Your task to perform on an android device: check android version Image 0: 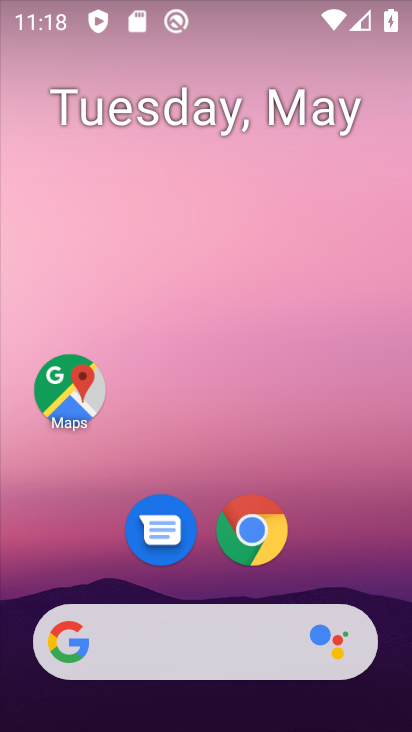
Step 0: drag from (199, 584) to (240, 154)
Your task to perform on an android device: check android version Image 1: 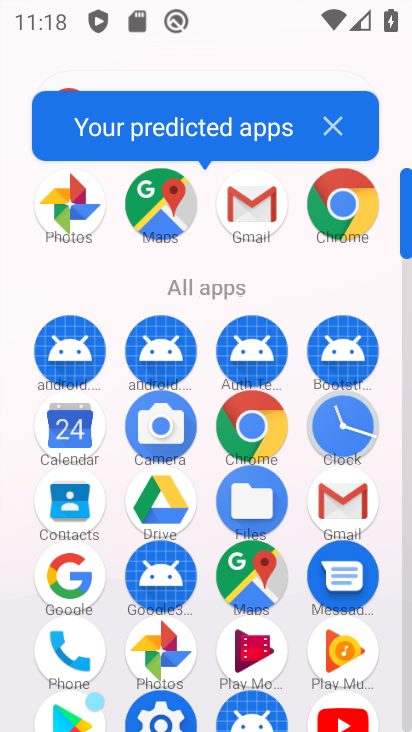
Step 1: drag from (208, 637) to (191, 348)
Your task to perform on an android device: check android version Image 2: 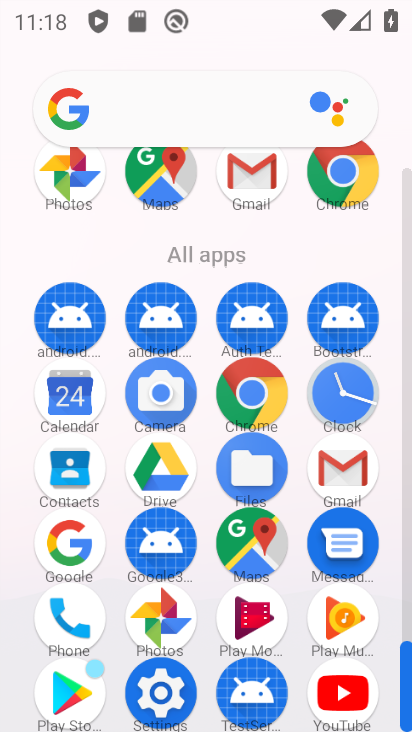
Step 2: click (160, 691)
Your task to perform on an android device: check android version Image 3: 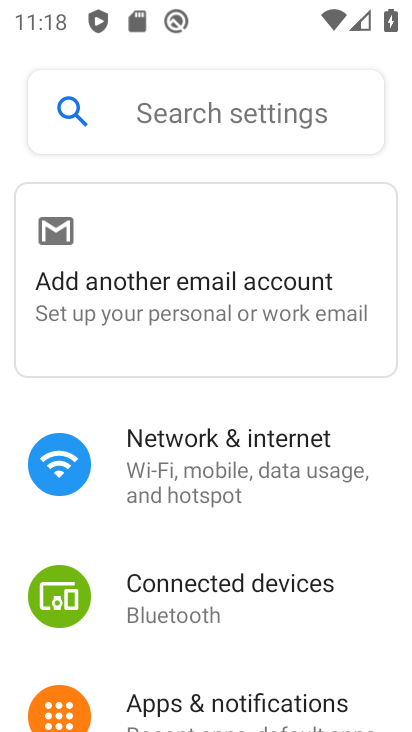
Step 3: drag from (228, 621) to (257, 311)
Your task to perform on an android device: check android version Image 4: 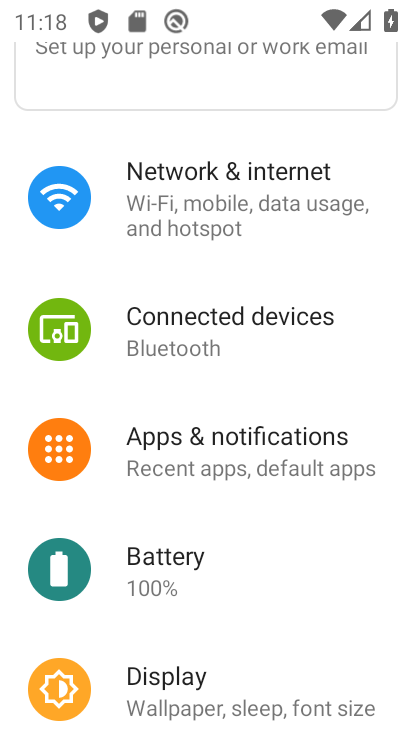
Step 4: drag from (248, 657) to (302, 233)
Your task to perform on an android device: check android version Image 5: 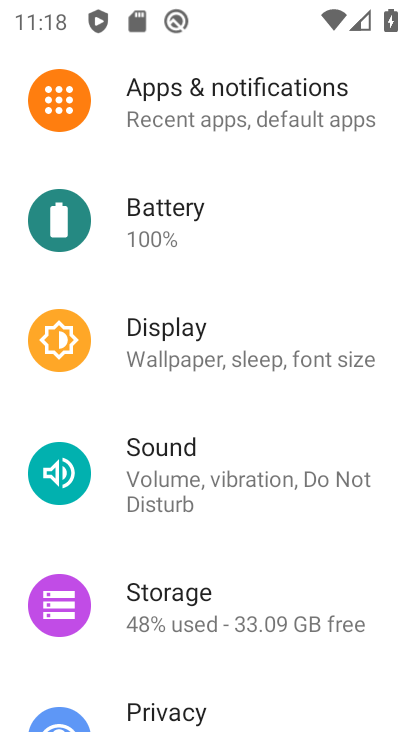
Step 5: drag from (214, 651) to (267, 9)
Your task to perform on an android device: check android version Image 6: 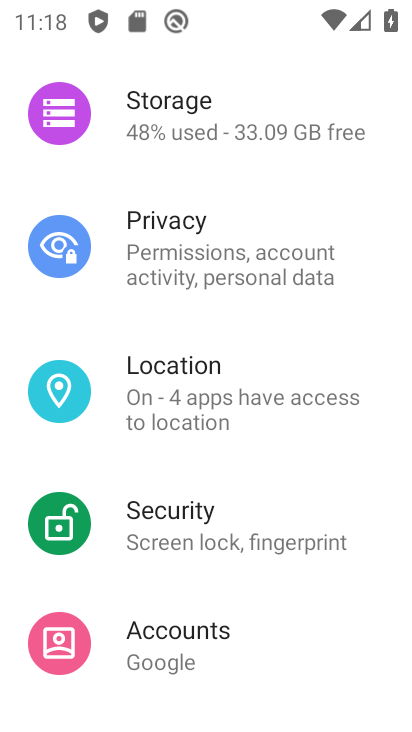
Step 6: drag from (266, 707) to (366, 276)
Your task to perform on an android device: check android version Image 7: 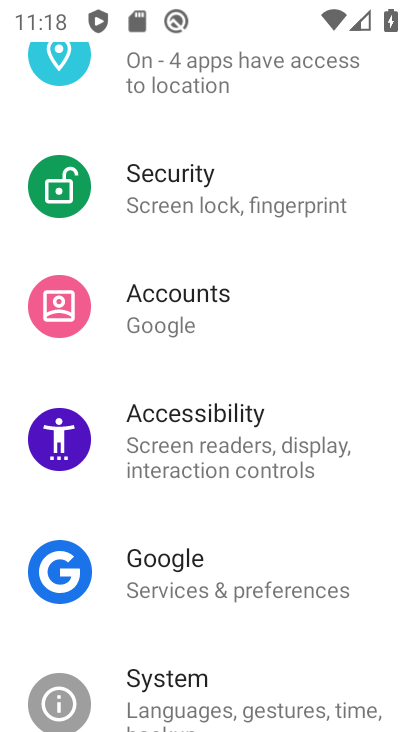
Step 7: drag from (280, 568) to (309, 238)
Your task to perform on an android device: check android version Image 8: 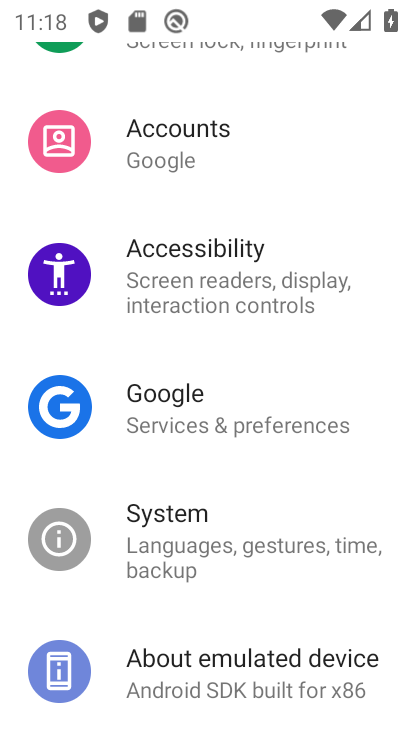
Step 8: click (251, 675)
Your task to perform on an android device: check android version Image 9: 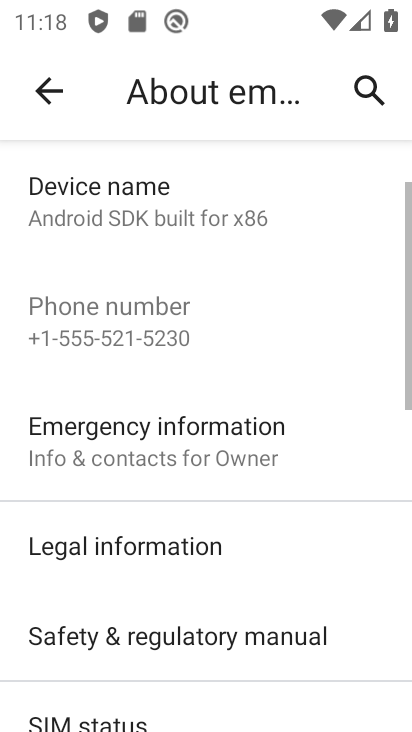
Step 9: drag from (198, 549) to (324, 179)
Your task to perform on an android device: check android version Image 10: 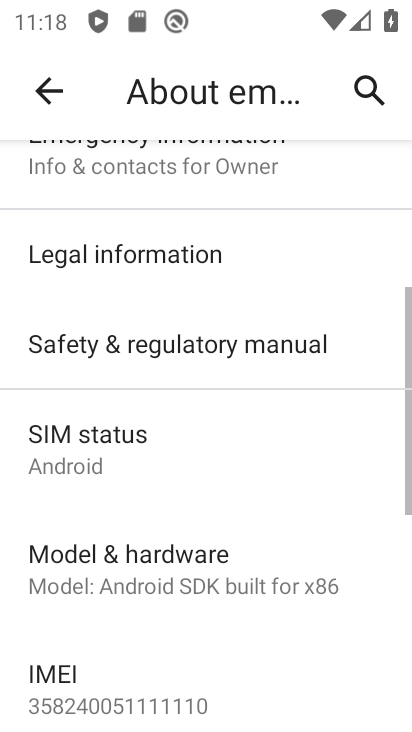
Step 10: drag from (156, 654) to (200, 421)
Your task to perform on an android device: check android version Image 11: 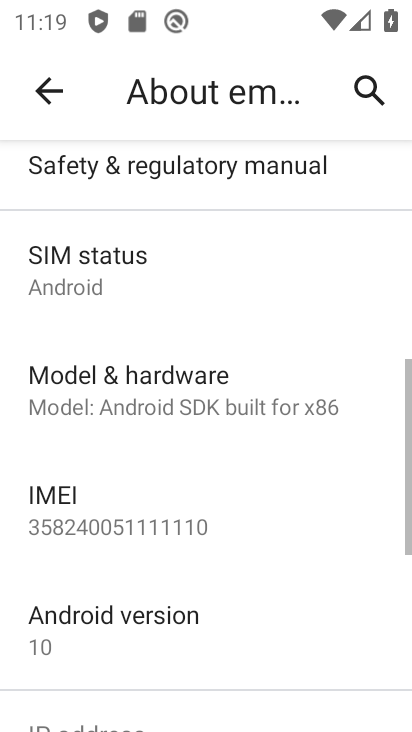
Step 11: click (100, 627)
Your task to perform on an android device: check android version Image 12: 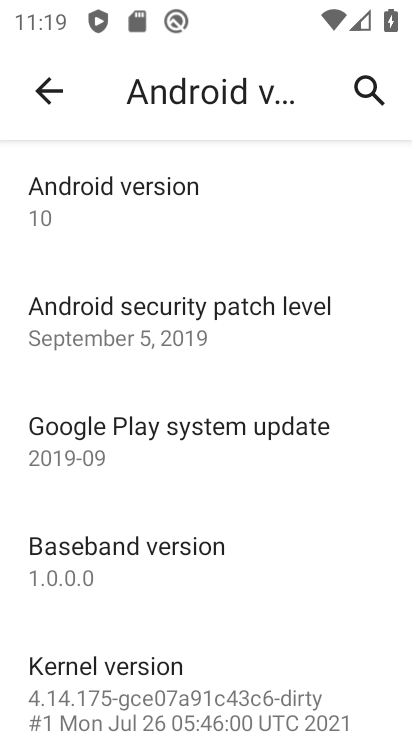
Step 12: task complete